Your task to perform on an android device: find photos in the google photos app Image 0: 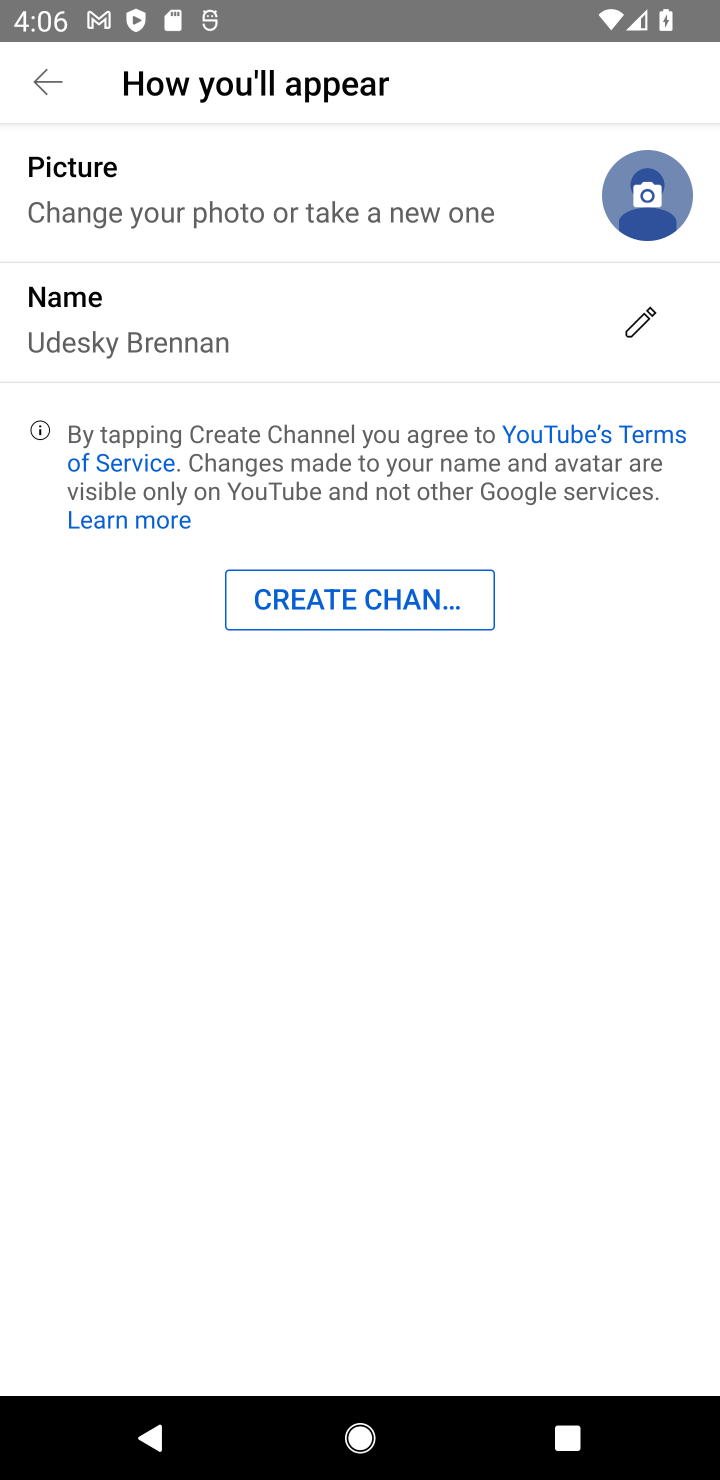
Step 0: press home button
Your task to perform on an android device: find photos in the google photos app Image 1: 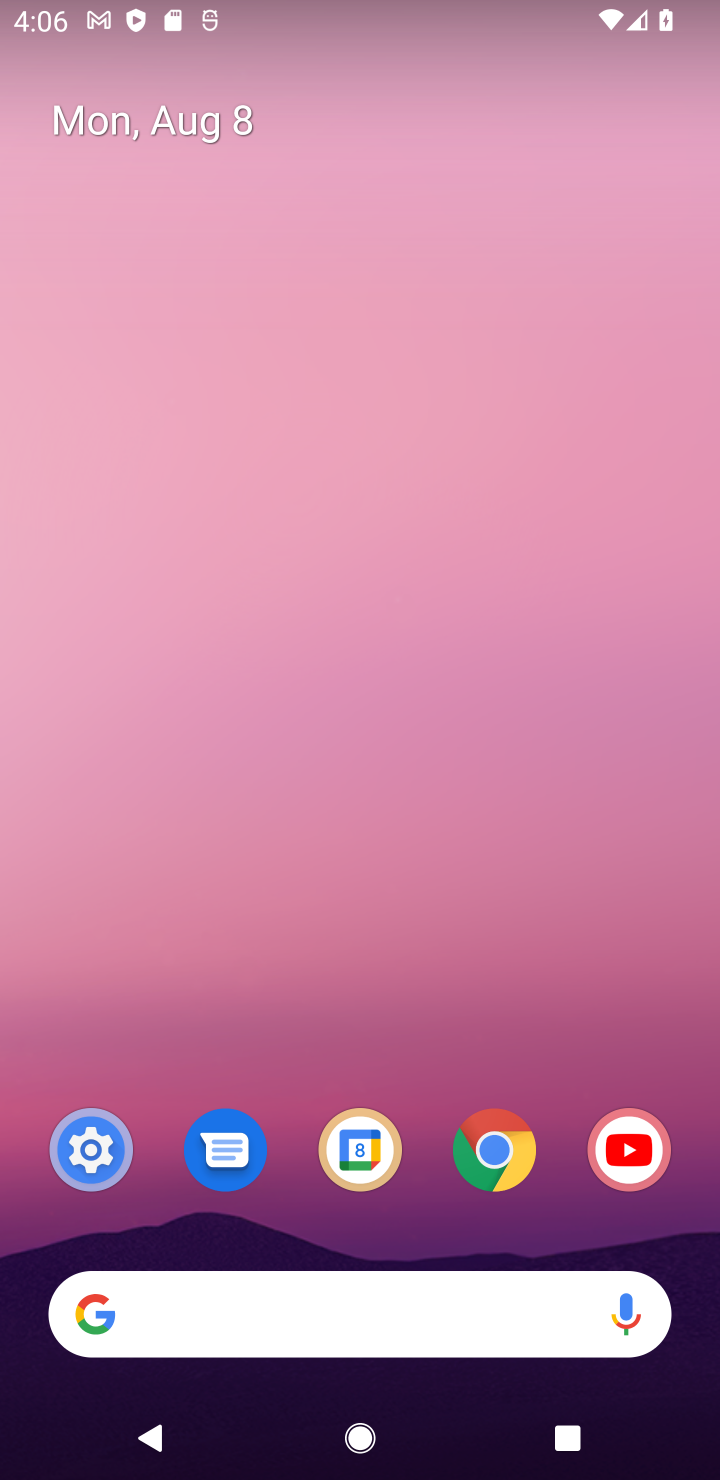
Step 1: drag from (471, 1211) to (292, 31)
Your task to perform on an android device: find photos in the google photos app Image 2: 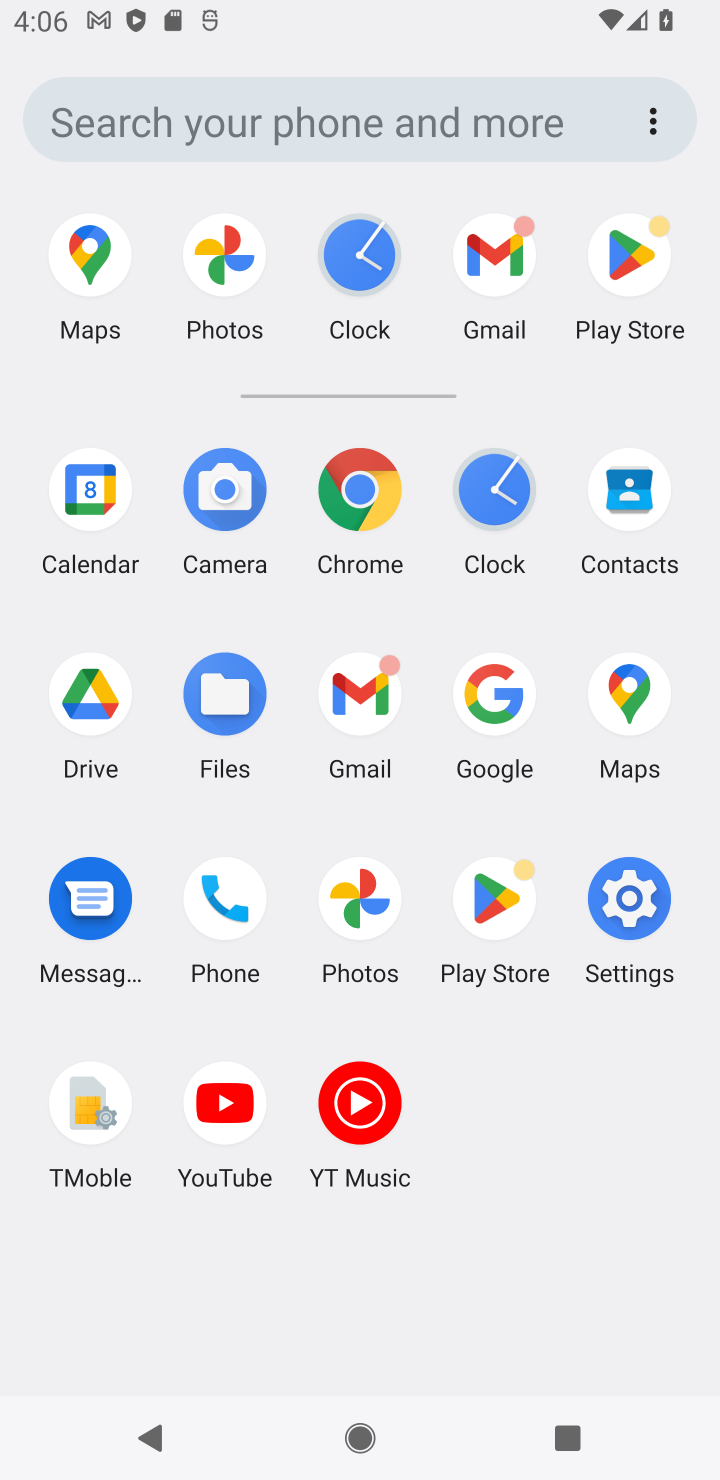
Step 2: click (212, 300)
Your task to perform on an android device: find photos in the google photos app Image 3: 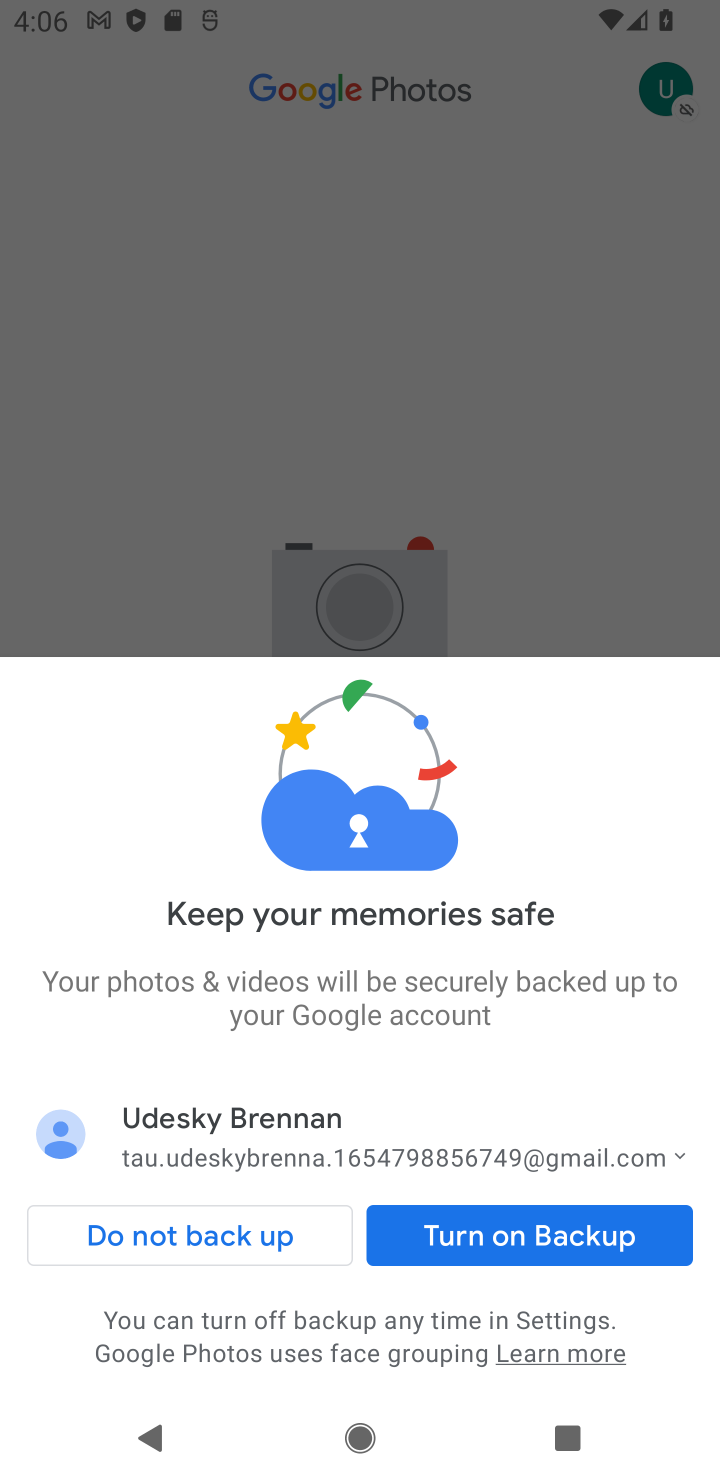
Step 3: task complete